Your task to perform on an android device: Open Yahoo.com Image 0: 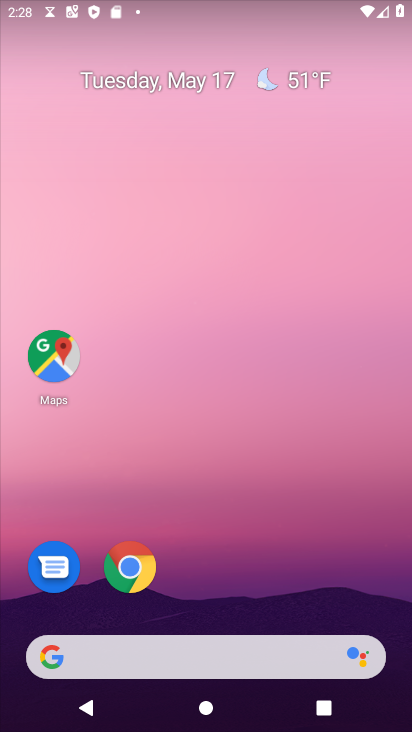
Step 0: click (128, 592)
Your task to perform on an android device: Open Yahoo.com Image 1: 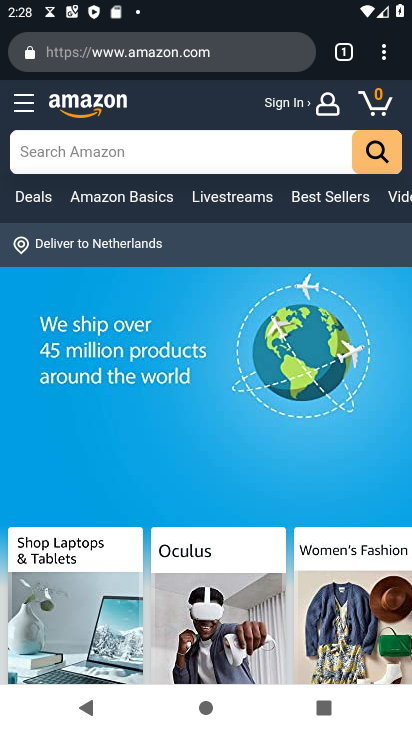
Step 1: click (199, 50)
Your task to perform on an android device: Open Yahoo.com Image 2: 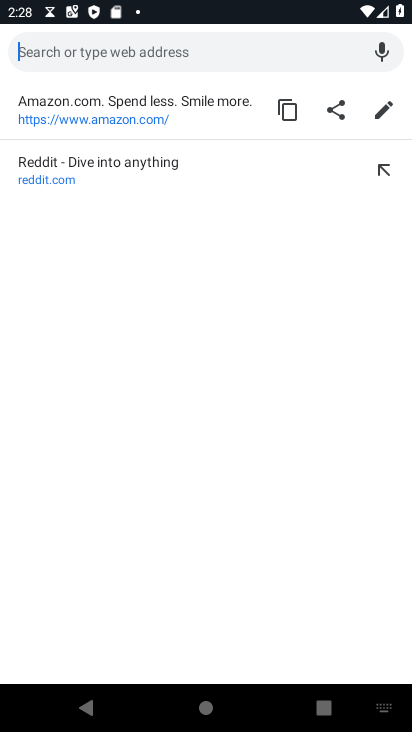
Step 2: type "yahoo.com"
Your task to perform on an android device: Open Yahoo.com Image 3: 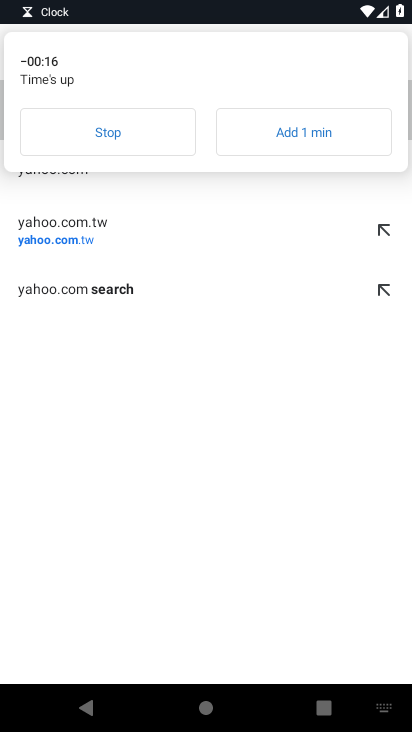
Step 3: click (88, 124)
Your task to perform on an android device: Open Yahoo.com Image 4: 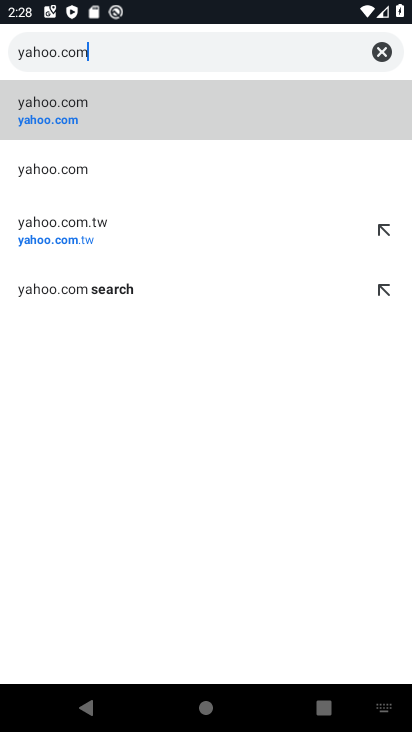
Step 4: click (116, 119)
Your task to perform on an android device: Open Yahoo.com Image 5: 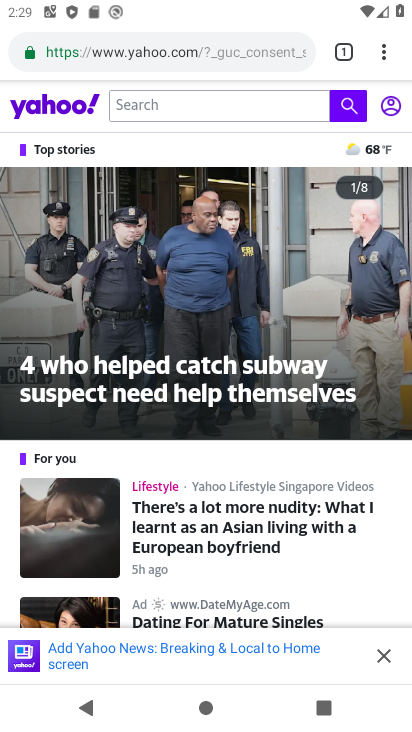
Step 5: task complete